Your task to perform on an android device: toggle notifications settings in the gmail app Image 0: 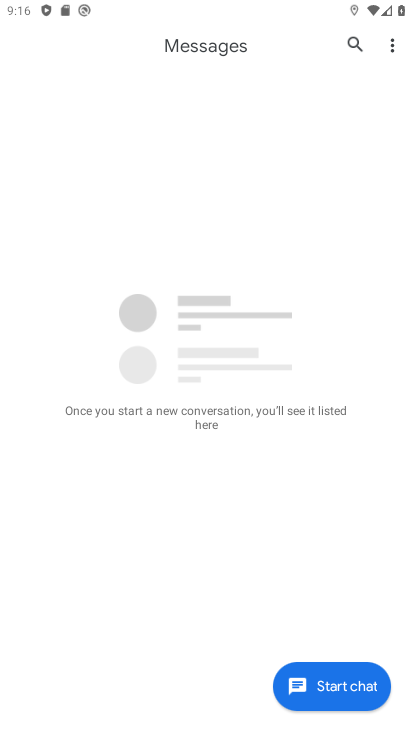
Step 0: press home button
Your task to perform on an android device: toggle notifications settings in the gmail app Image 1: 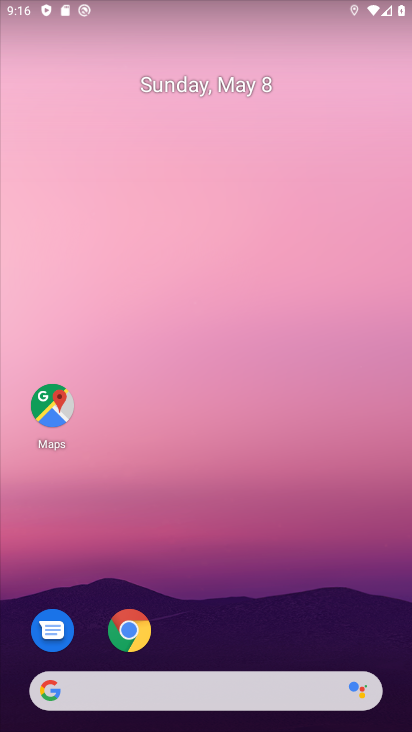
Step 1: drag from (268, 668) to (325, 408)
Your task to perform on an android device: toggle notifications settings in the gmail app Image 2: 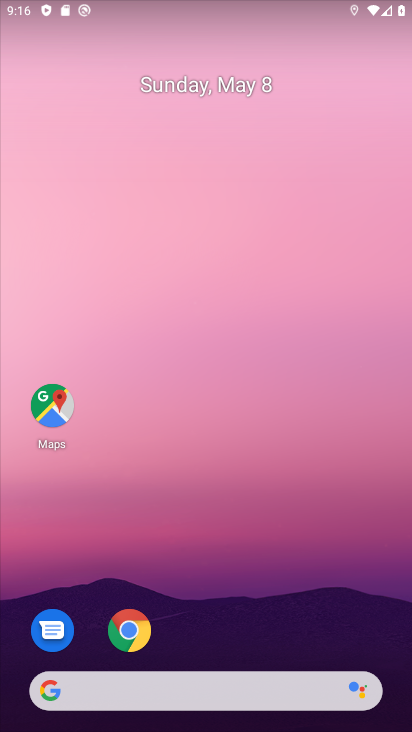
Step 2: drag from (217, 672) to (328, 151)
Your task to perform on an android device: toggle notifications settings in the gmail app Image 3: 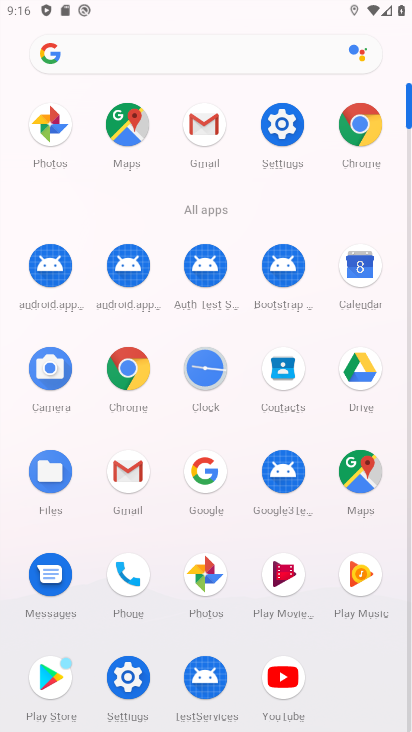
Step 3: click (135, 493)
Your task to perform on an android device: toggle notifications settings in the gmail app Image 4: 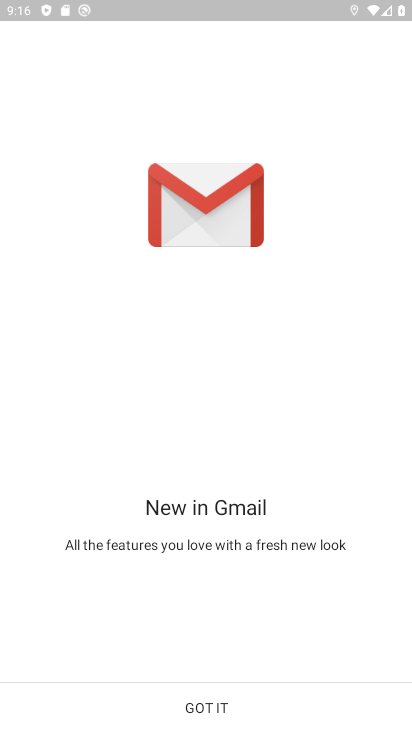
Step 4: click (265, 705)
Your task to perform on an android device: toggle notifications settings in the gmail app Image 5: 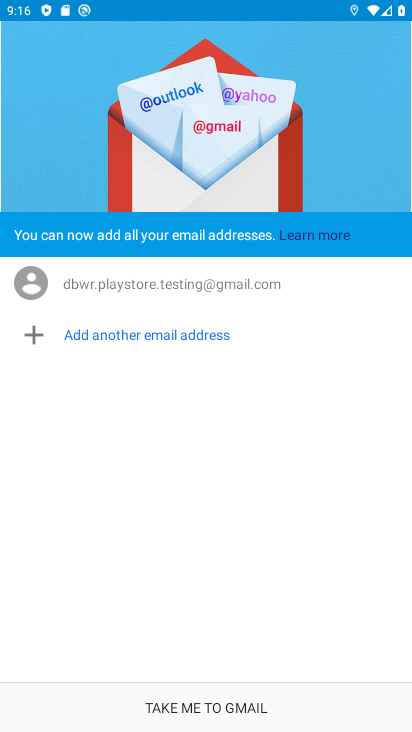
Step 5: click (265, 705)
Your task to perform on an android device: toggle notifications settings in the gmail app Image 6: 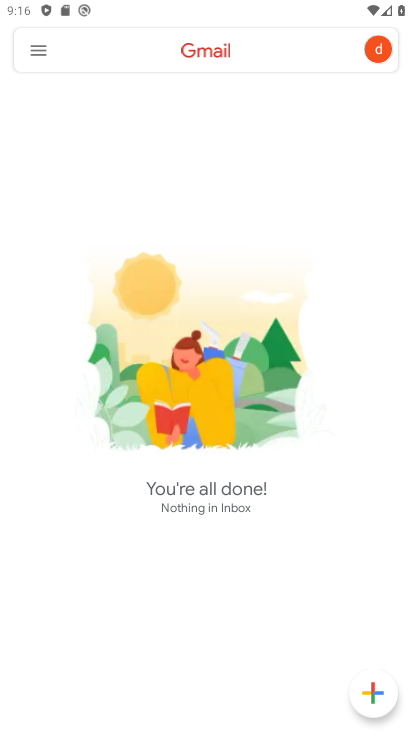
Step 6: click (46, 57)
Your task to perform on an android device: toggle notifications settings in the gmail app Image 7: 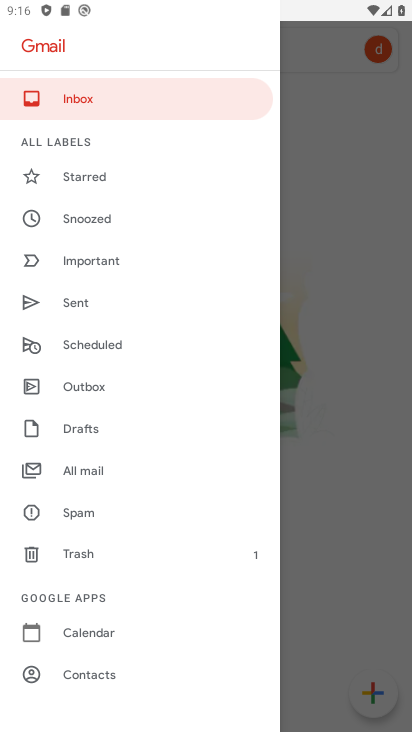
Step 7: drag from (134, 658) to (168, 513)
Your task to perform on an android device: toggle notifications settings in the gmail app Image 8: 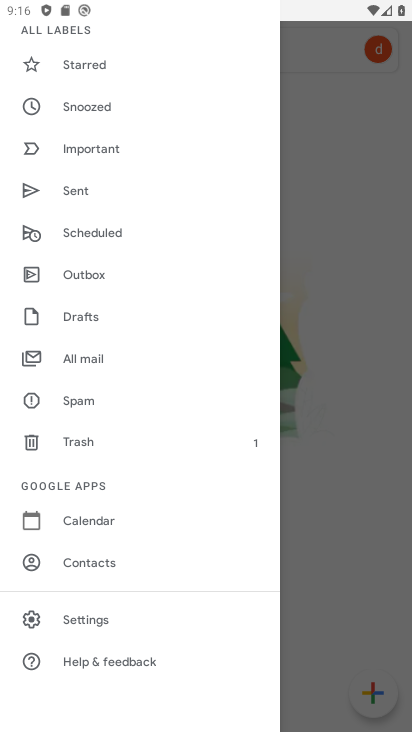
Step 8: click (115, 628)
Your task to perform on an android device: toggle notifications settings in the gmail app Image 9: 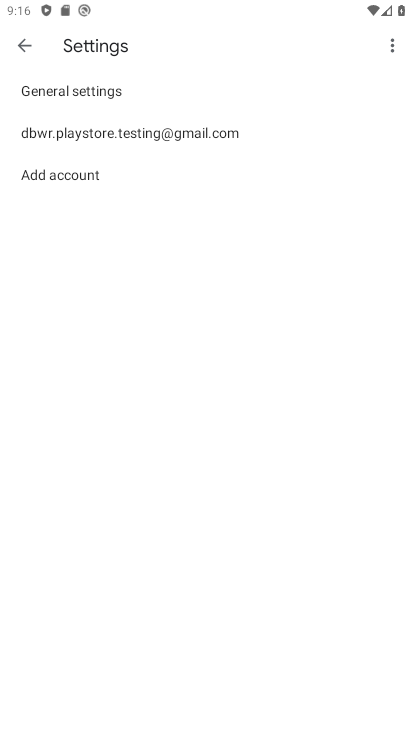
Step 9: click (246, 133)
Your task to perform on an android device: toggle notifications settings in the gmail app Image 10: 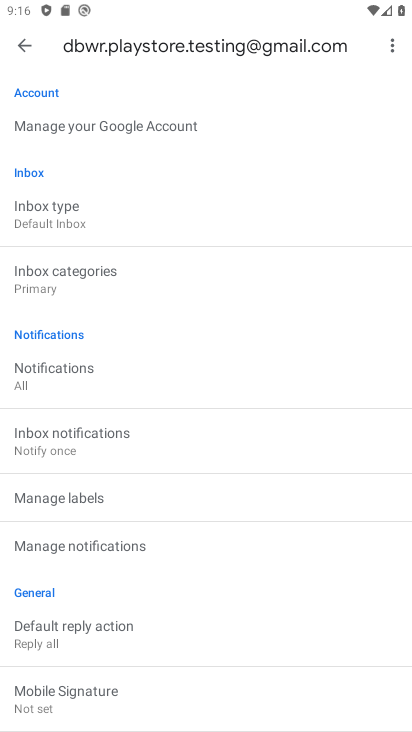
Step 10: click (171, 546)
Your task to perform on an android device: toggle notifications settings in the gmail app Image 11: 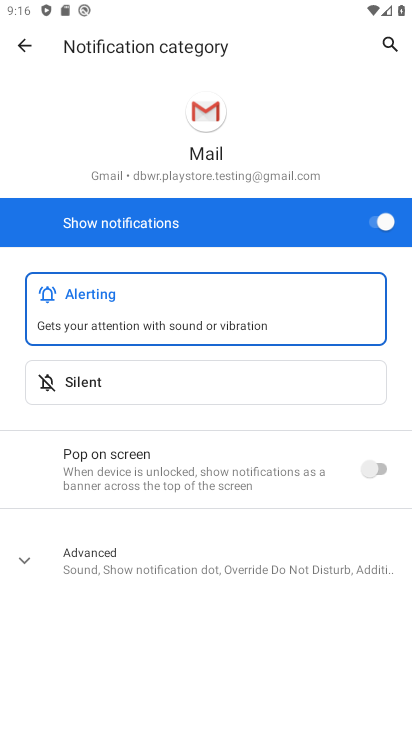
Step 11: click (373, 220)
Your task to perform on an android device: toggle notifications settings in the gmail app Image 12: 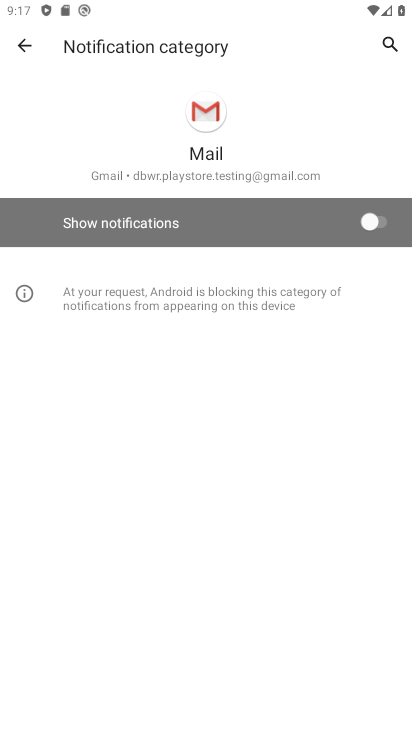
Step 12: task complete